Your task to perform on an android device: toggle translation in the chrome app Image 0: 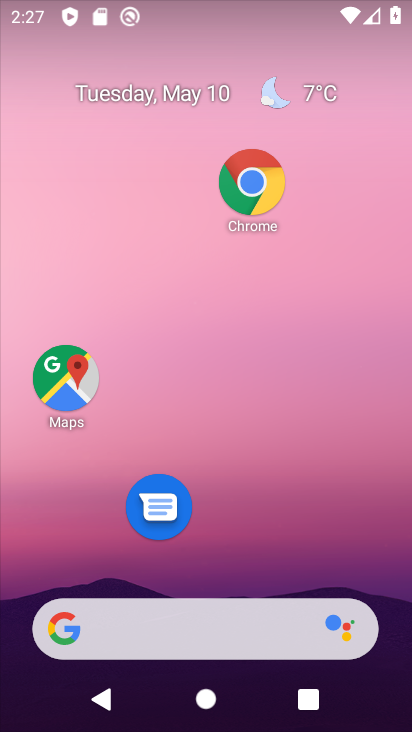
Step 0: click (232, 203)
Your task to perform on an android device: toggle translation in the chrome app Image 1: 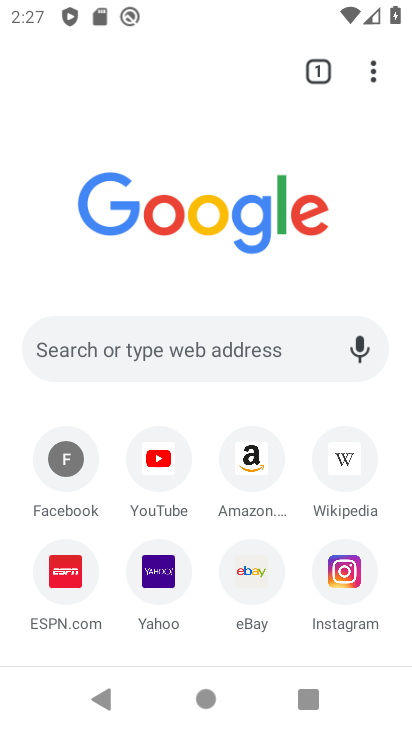
Step 1: click (384, 65)
Your task to perform on an android device: toggle translation in the chrome app Image 2: 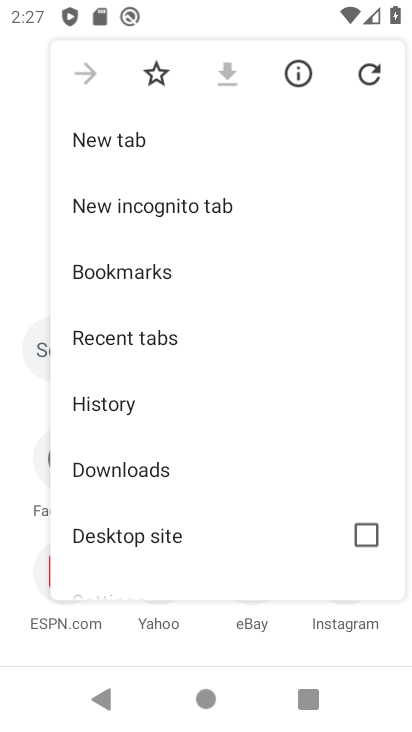
Step 2: task complete